Your task to perform on an android device: toggle sleep mode Image 0: 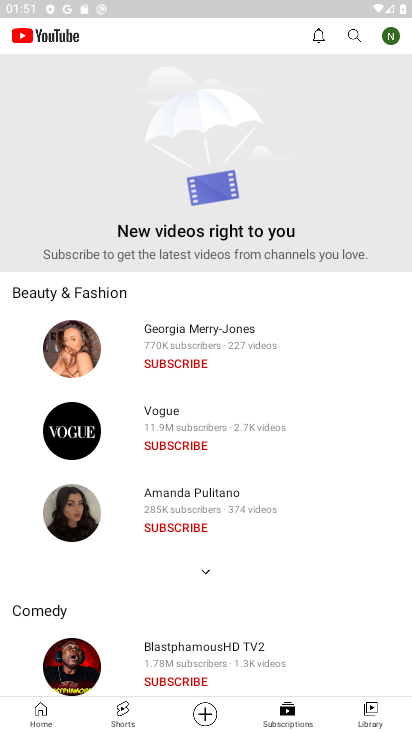
Step 0: press home button
Your task to perform on an android device: toggle sleep mode Image 1: 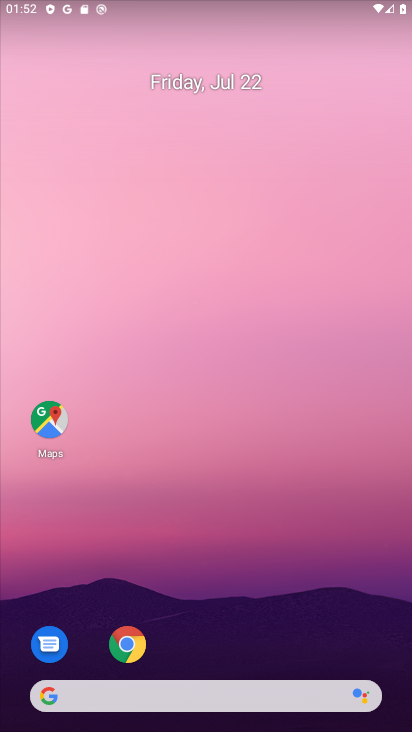
Step 1: drag from (121, 618) to (182, 0)
Your task to perform on an android device: toggle sleep mode Image 2: 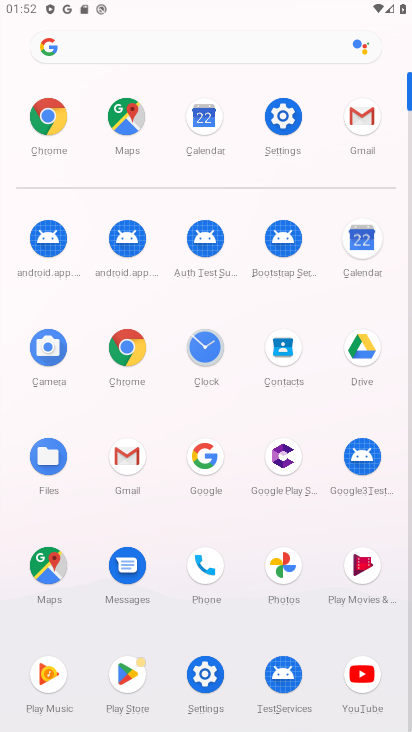
Step 2: click (272, 158)
Your task to perform on an android device: toggle sleep mode Image 3: 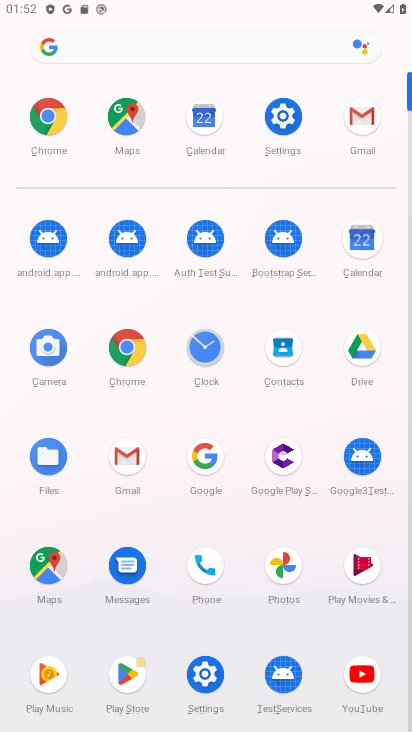
Step 3: click (272, 158)
Your task to perform on an android device: toggle sleep mode Image 4: 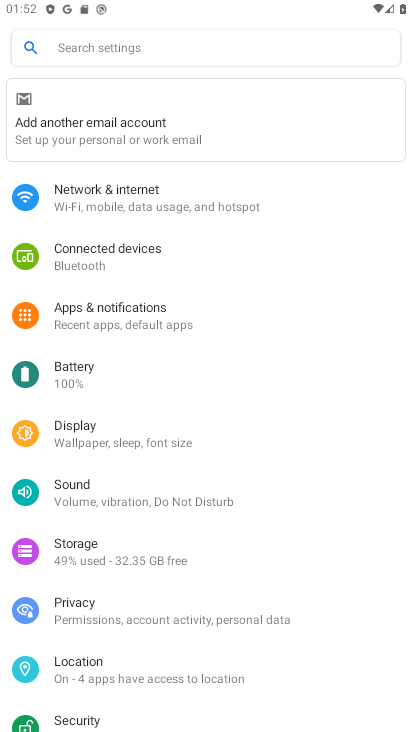
Step 4: click (155, 443)
Your task to perform on an android device: toggle sleep mode Image 5: 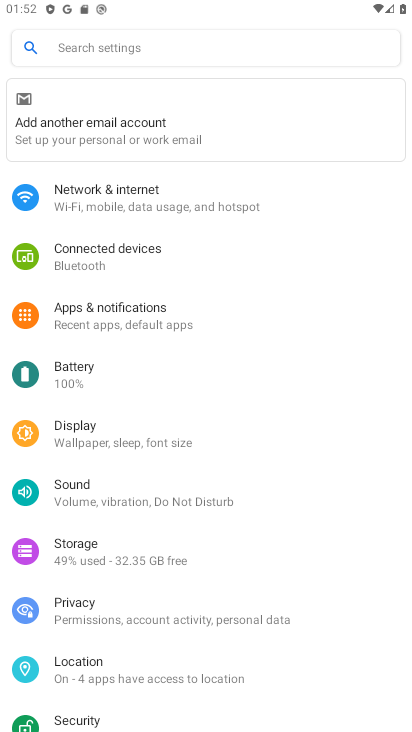
Step 5: click (155, 443)
Your task to perform on an android device: toggle sleep mode Image 6: 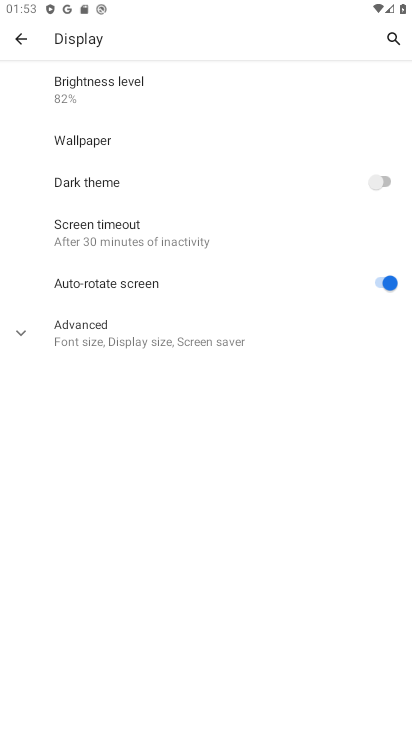
Step 6: task complete